Your task to perform on an android device: What is the news today? Image 0: 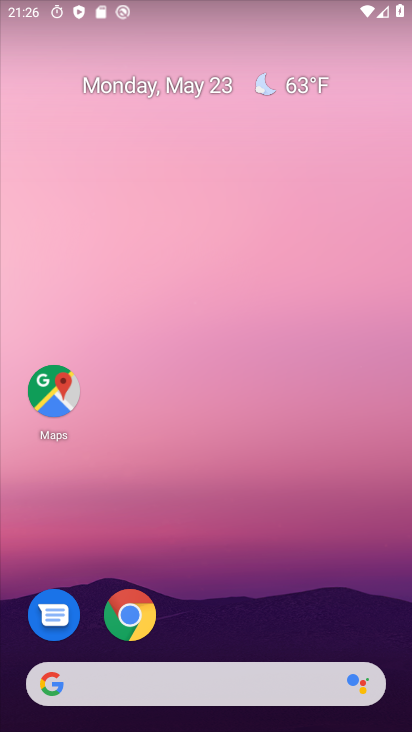
Step 0: drag from (206, 623) to (185, 107)
Your task to perform on an android device: What is the news today? Image 1: 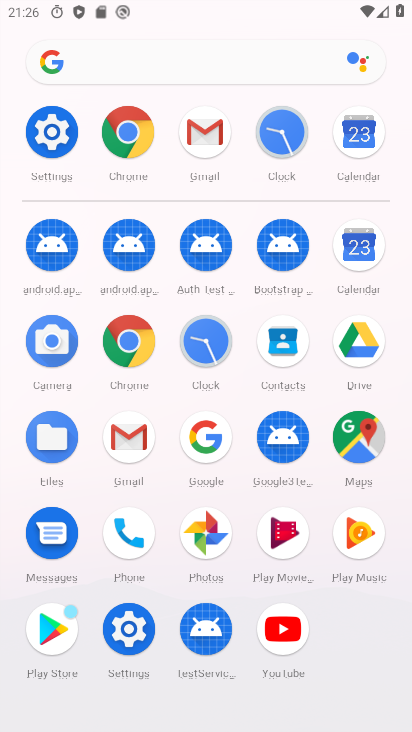
Step 1: click (197, 435)
Your task to perform on an android device: What is the news today? Image 2: 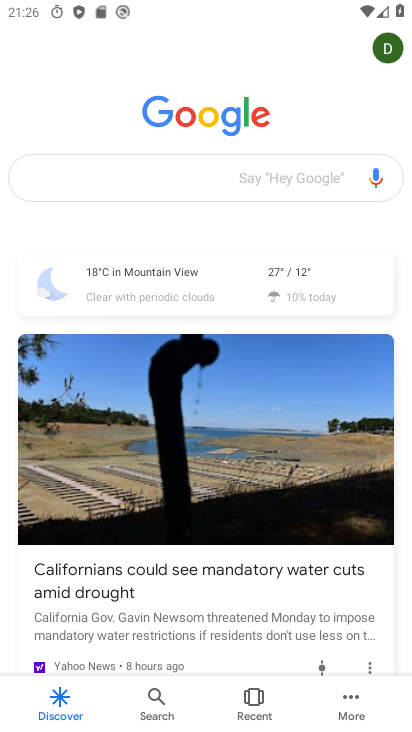
Step 2: click (150, 178)
Your task to perform on an android device: What is the news today? Image 3: 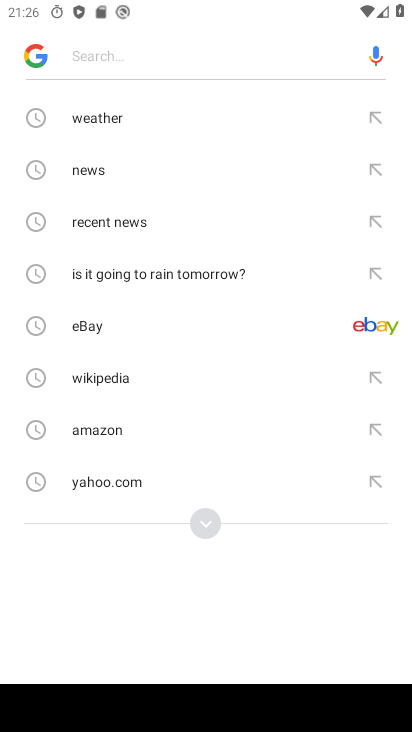
Step 3: click (125, 170)
Your task to perform on an android device: What is the news today? Image 4: 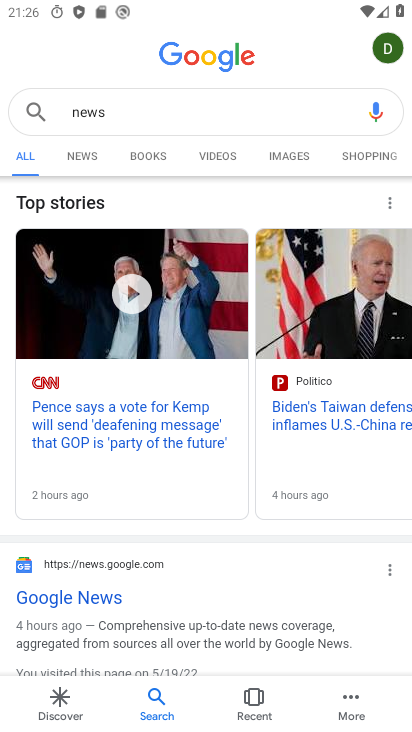
Step 4: task complete